Your task to perform on an android device: What's the price of the Vizio TV? Image 0: 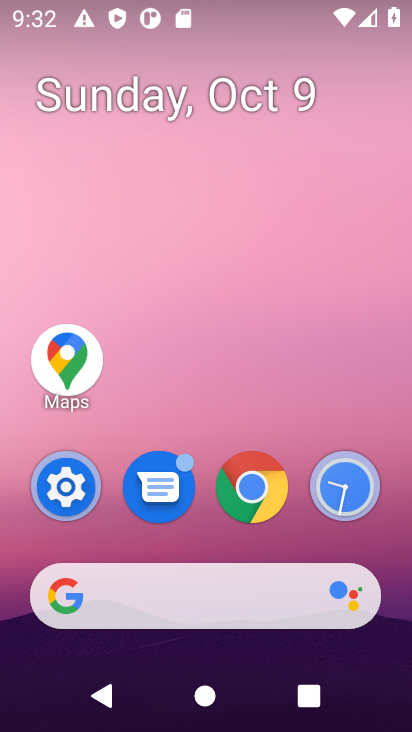
Step 0: drag from (302, 675) to (258, 59)
Your task to perform on an android device: What's the price of the Vizio TV? Image 1: 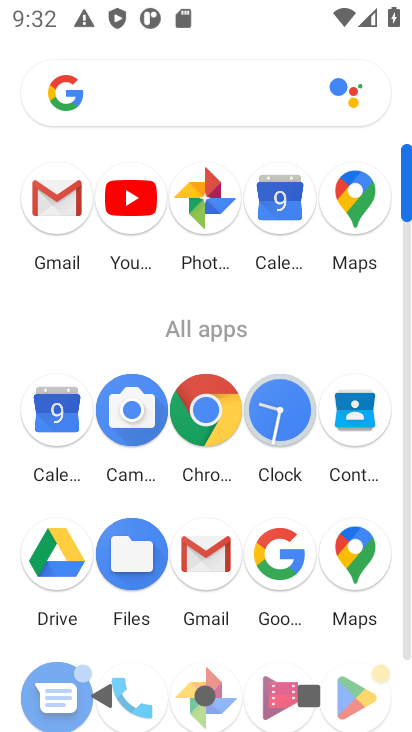
Step 1: click (271, 567)
Your task to perform on an android device: What's the price of the Vizio TV? Image 2: 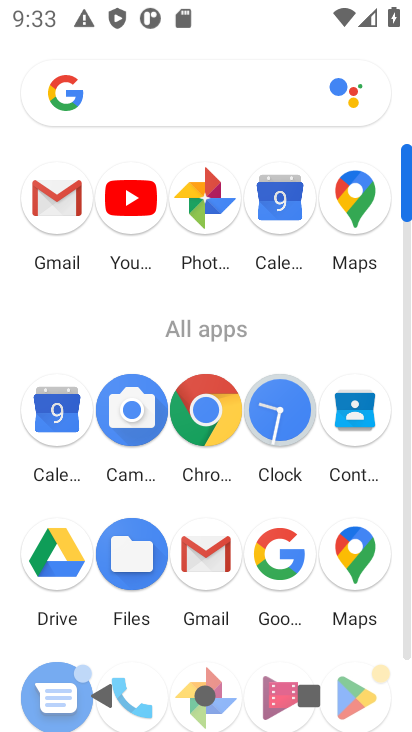
Step 2: click (282, 537)
Your task to perform on an android device: What's the price of the Vizio TV? Image 3: 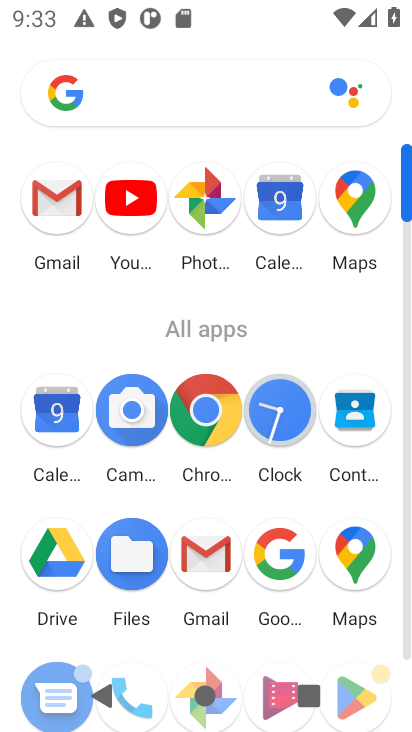
Step 3: click (283, 551)
Your task to perform on an android device: What's the price of the Vizio TV? Image 4: 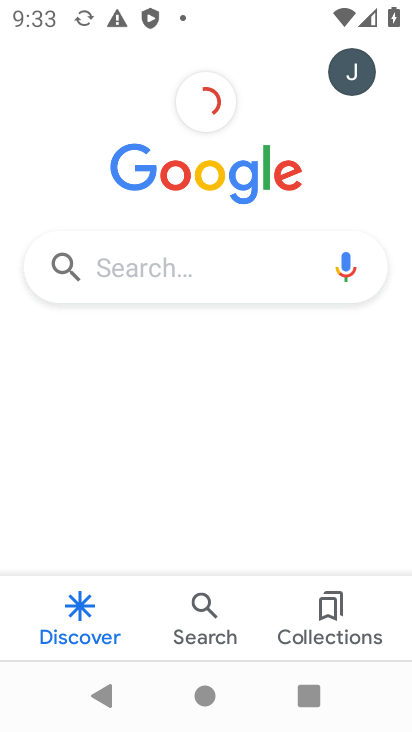
Step 4: click (249, 255)
Your task to perform on an android device: What's the price of the Vizio TV? Image 5: 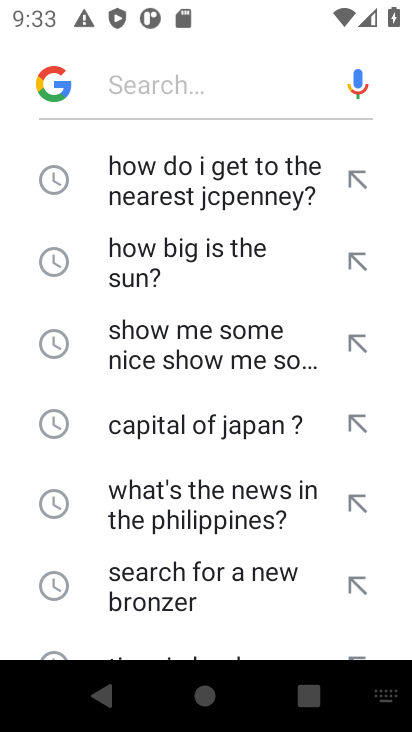
Step 5: type "Vizio TV"
Your task to perform on an android device: What's the price of the Vizio TV? Image 6: 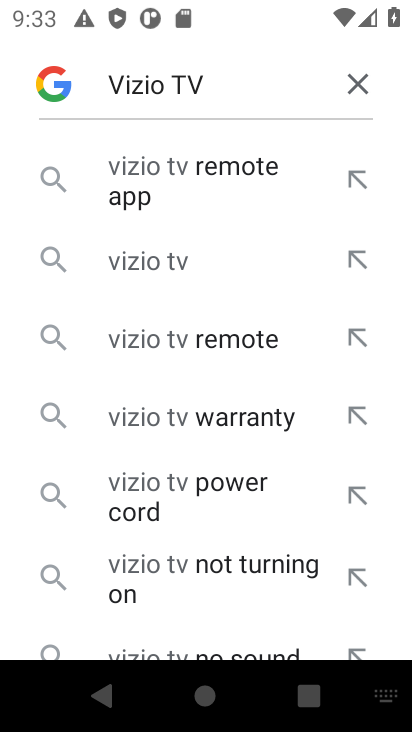
Step 6: type " price"
Your task to perform on an android device: What's the price of the Vizio TV? Image 7: 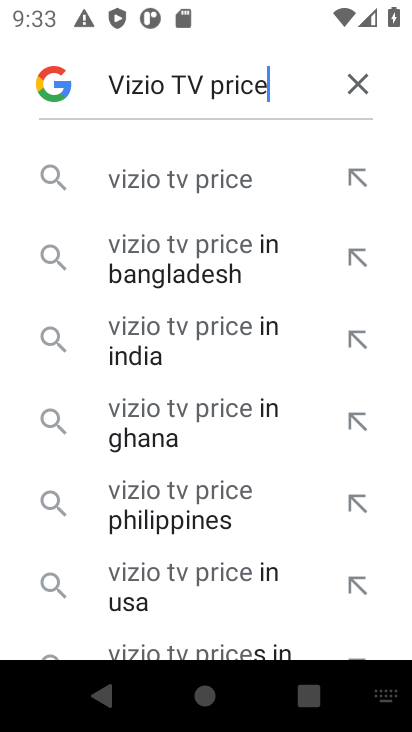
Step 7: click (243, 164)
Your task to perform on an android device: What's the price of the Vizio TV? Image 8: 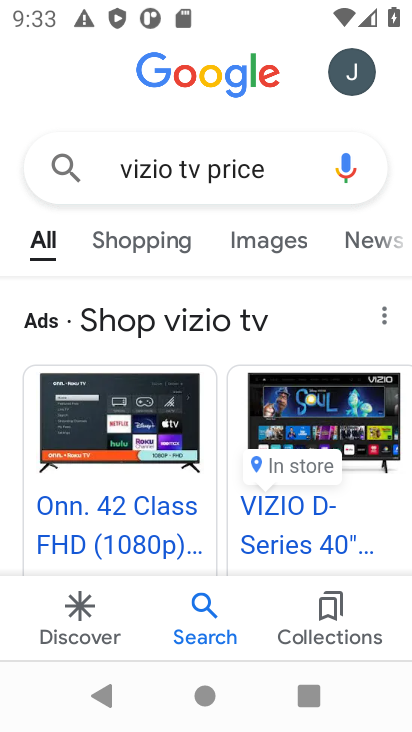
Step 8: task complete